Your task to perform on an android device: Search for "bose soundlink" on amazon.com, select the first entry, and add it to the cart. Image 0: 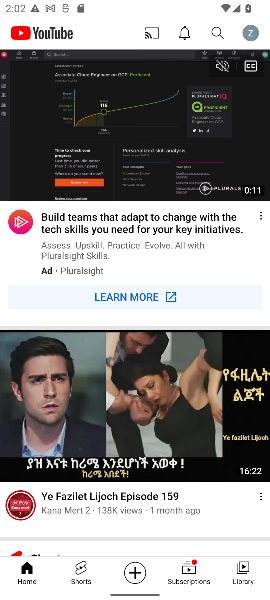
Step 0: press home button
Your task to perform on an android device: Search for "bose soundlink" on amazon.com, select the first entry, and add it to the cart. Image 1: 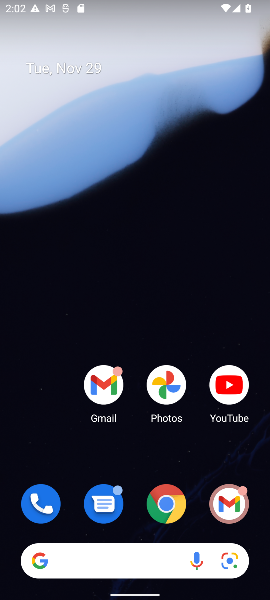
Step 1: click (163, 511)
Your task to perform on an android device: Search for "bose soundlink" on amazon.com, select the first entry, and add it to the cart. Image 2: 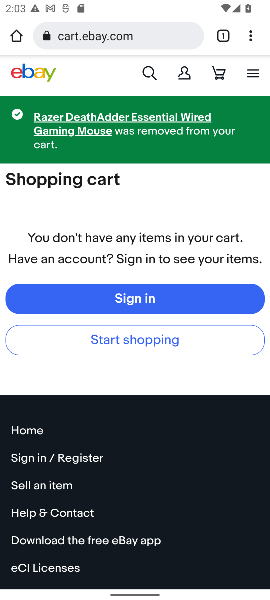
Step 2: click (102, 39)
Your task to perform on an android device: Search for "bose soundlink" on amazon.com, select the first entry, and add it to the cart. Image 3: 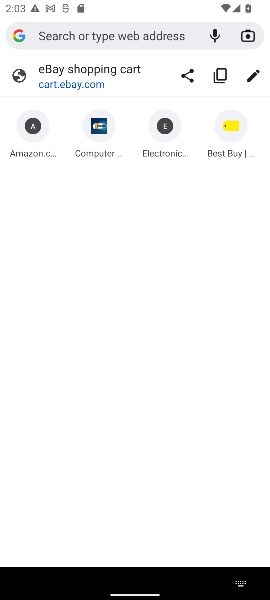
Step 3: click (26, 139)
Your task to perform on an android device: Search for "bose soundlink" on amazon.com, select the first entry, and add it to the cart. Image 4: 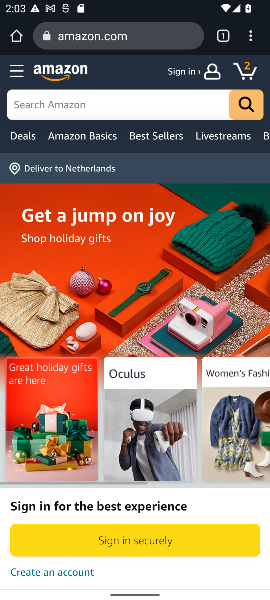
Step 4: click (90, 115)
Your task to perform on an android device: Search for "bose soundlink" on amazon.com, select the first entry, and add it to the cart. Image 5: 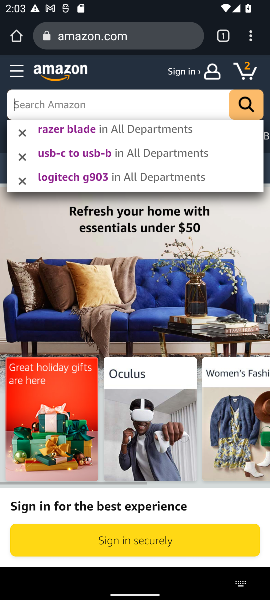
Step 5: type "bose soundlink"
Your task to perform on an android device: Search for "bose soundlink" on amazon.com, select the first entry, and add it to the cart. Image 6: 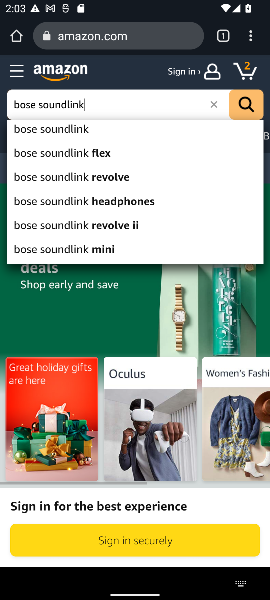
Step 6: click (41, 129)
Your task to perform on an android device: Search for "bose soundlink" on amazon.com, select the first entry, and add it to the cart. Image 7: 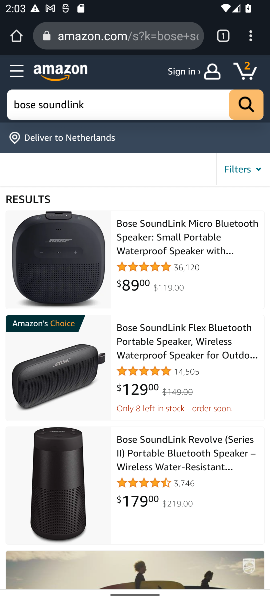
Step 7: click (144, 241)
Your task to perform on an android device: Search for "bose soundlink" on amazon.com, select the first entry, and add it to the cart. Image 8: 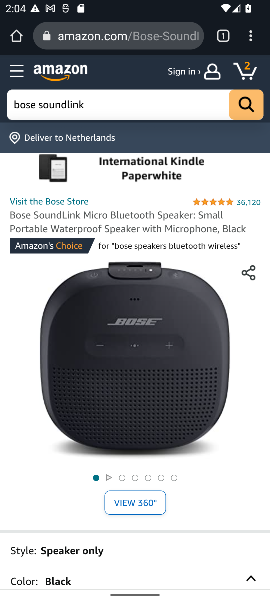
Step 8: task complete